Your task to perform on an android device: refresh tabs in the chrome app Image 0: 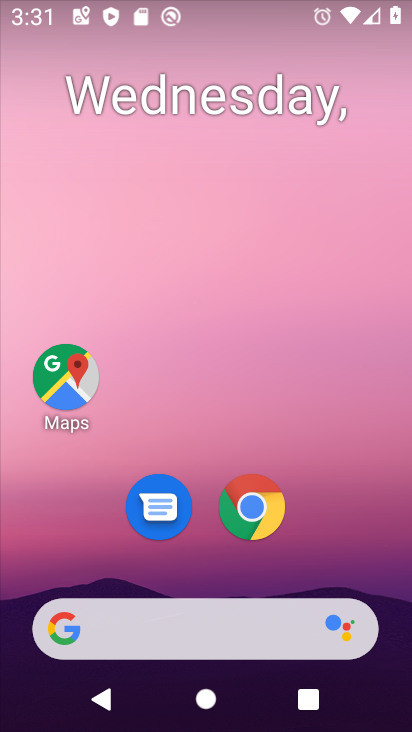
Step 0: click (243, 518)
Your task to perform on an android device: refresh tabs in the chrome app Image 1: 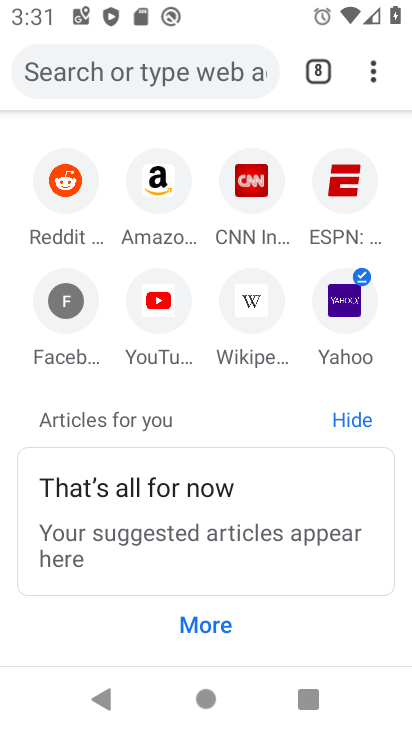
Step 1: click (374, 82)
Your task to perform on an android device: refresh tabs in the chrome app Image 2: 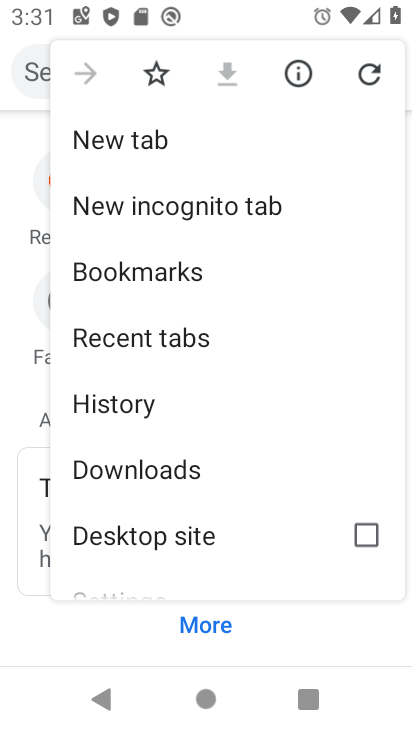
Step 2: click (374, 82)
Your task to perform on an android device: refresh tabs in the chrome app Image 3: 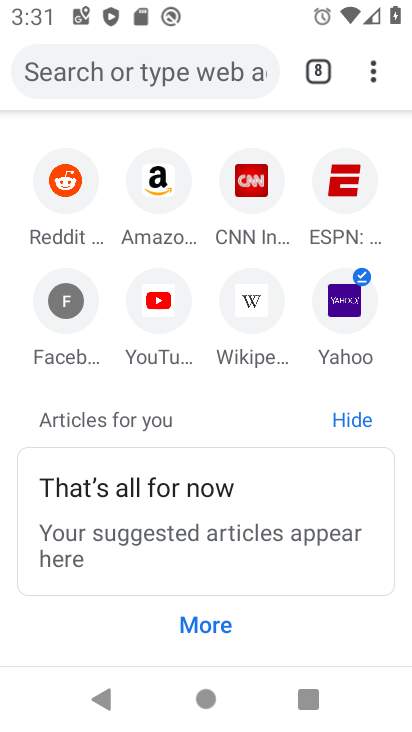
Step 3: click (374, 82)
Your task to perform on an android device: refresh tabs in the chrome app Image 4: 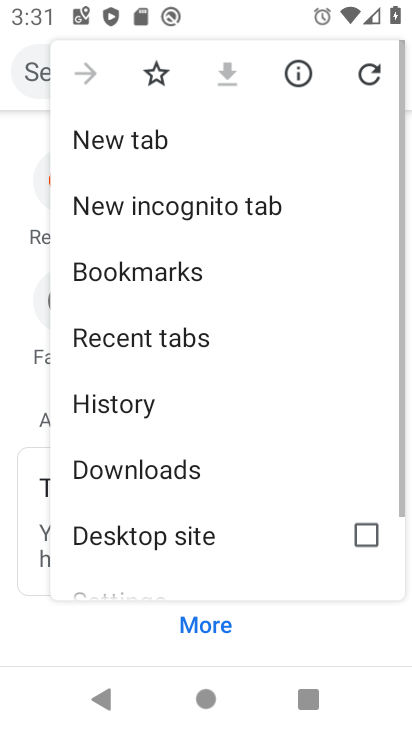
Step 4: click (374, 82)
Your task to perform on an android device: refresh tabs in the chrome app Image 5: 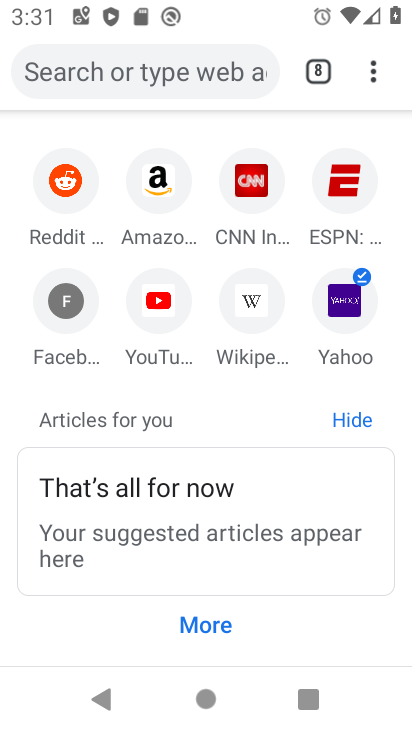
Step 5: click (374, 82)
Your task to perform on an android device: refresh tabs in the chrome app Image 6: 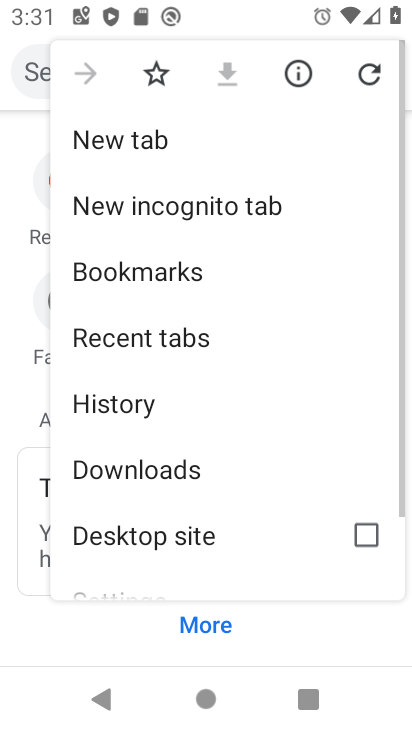
Step 6: click (374, 82)
Your task to perform on an android device: refresh tabs in the chrome app Image 7: 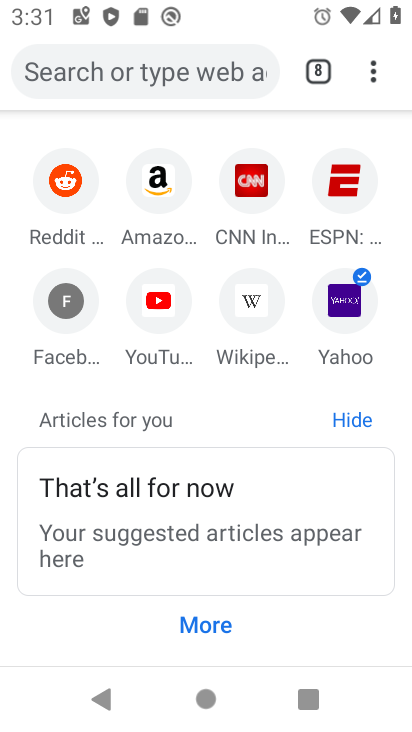
Step 7: task complete